Your task to perform on an android device: Show the shopping cart on newegg.com. Add "amazon basics triple a" to the cart on newegg.com, then select checkout. Image 0: 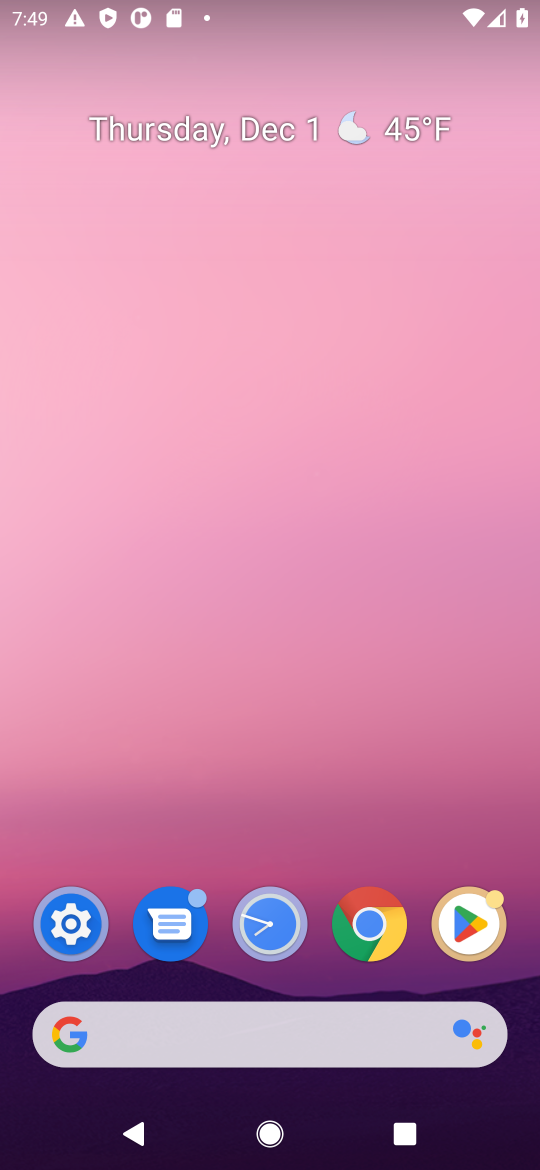
Step 0: click (283, 1038)
Your task to perform on an android device: Show the shopping cart on newegg.com. Add "amazon basics triple a" to the cart on newegg.com, then select checkout. Image 1: 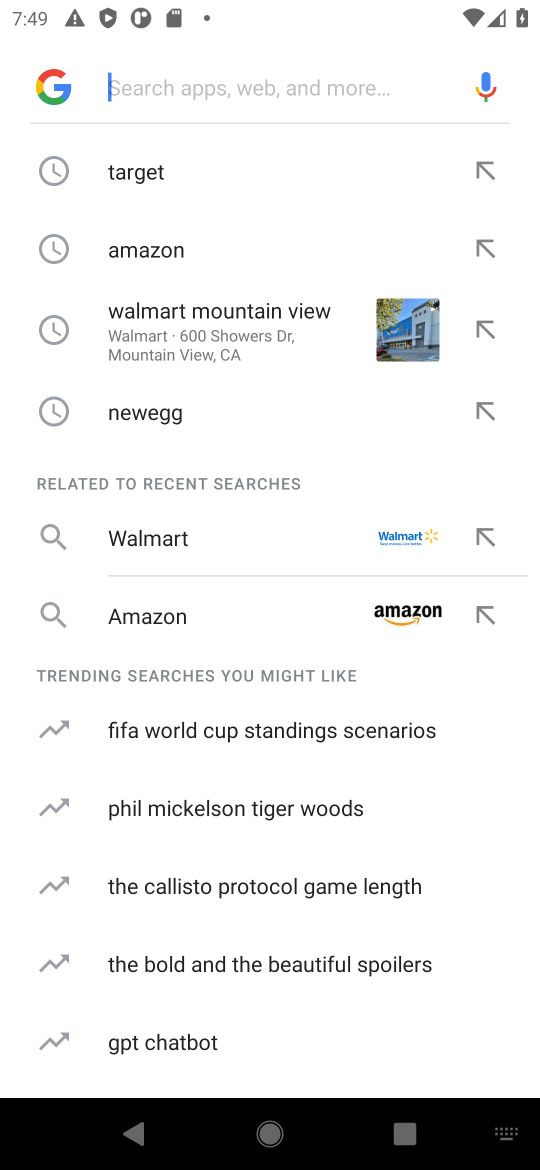
Step 1: type "newegg"
Your task to perform on an android device: Show the shopping cart on newegg.com. Add "amazon basics triple a" to the cart on newegg.com, then select checkout. Image 2: 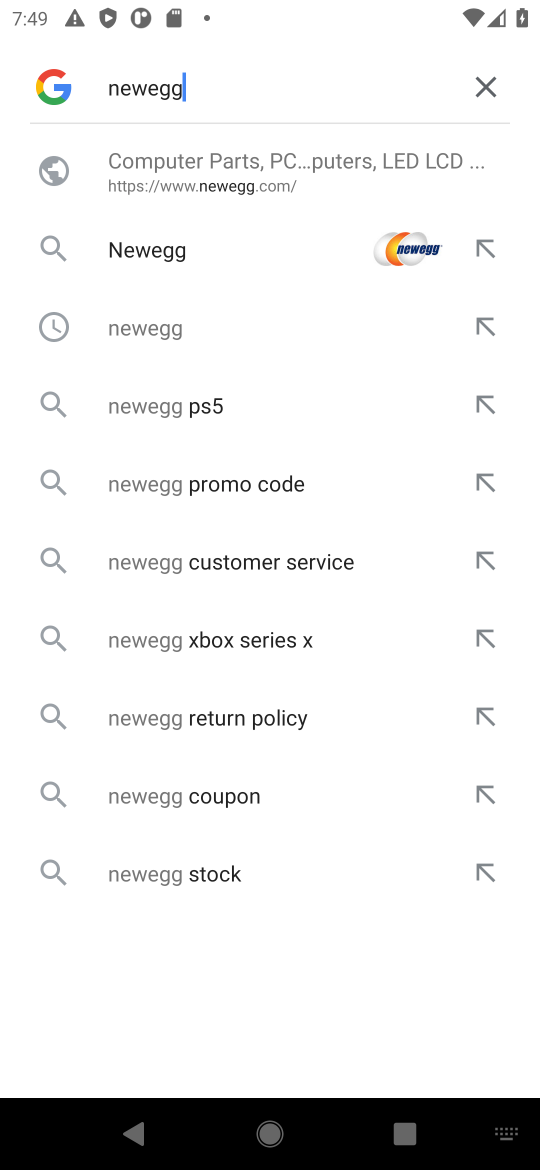
Step 2: click (152, 209)
Your task to perform on an android device: Show the shopping cart on newegg.com. Add "amazon basics triple a" to the cart on newegg.com, then select checkout. Image 3: 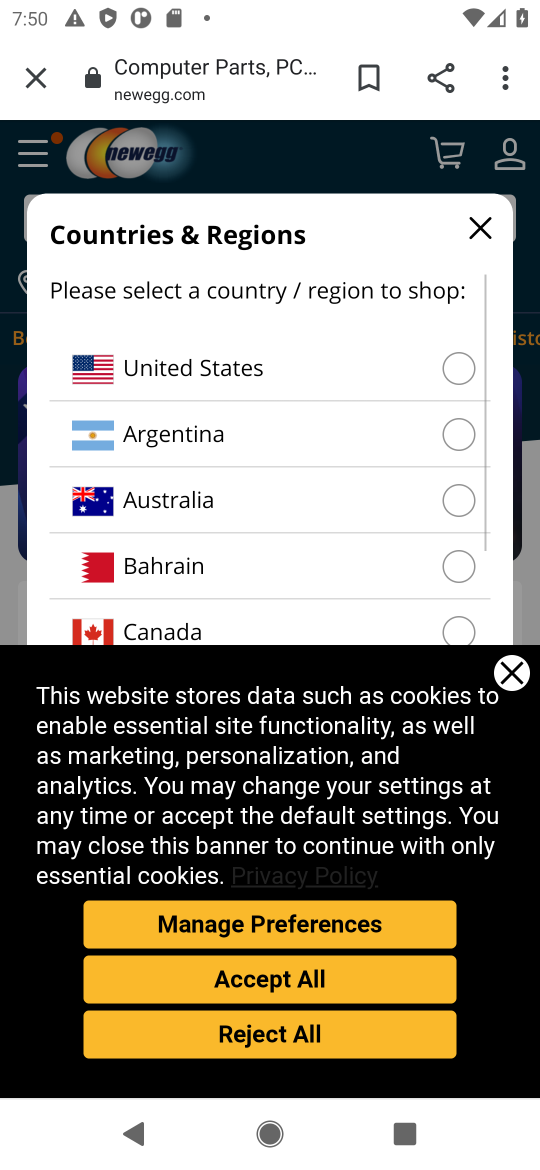
Step 3: click (271, 366)
Your task to perform on an android device: Show the shopping cart on newegg.com. Add "amazon basics triple a" to the cart on newegg.com, then select checkout. Image 4: 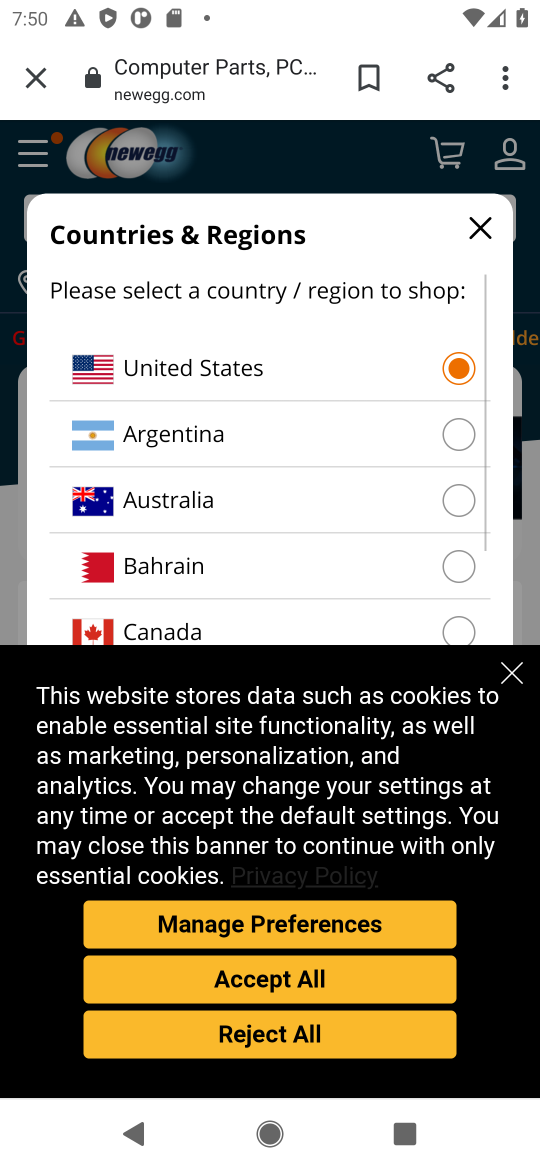
Step 4: click (335, 969)
Your task to perform on an android device: Show the shopping cart on newegg.com. Add "amazon basics triple a" to the cart on newegg.com, then select checkout. Image 5: 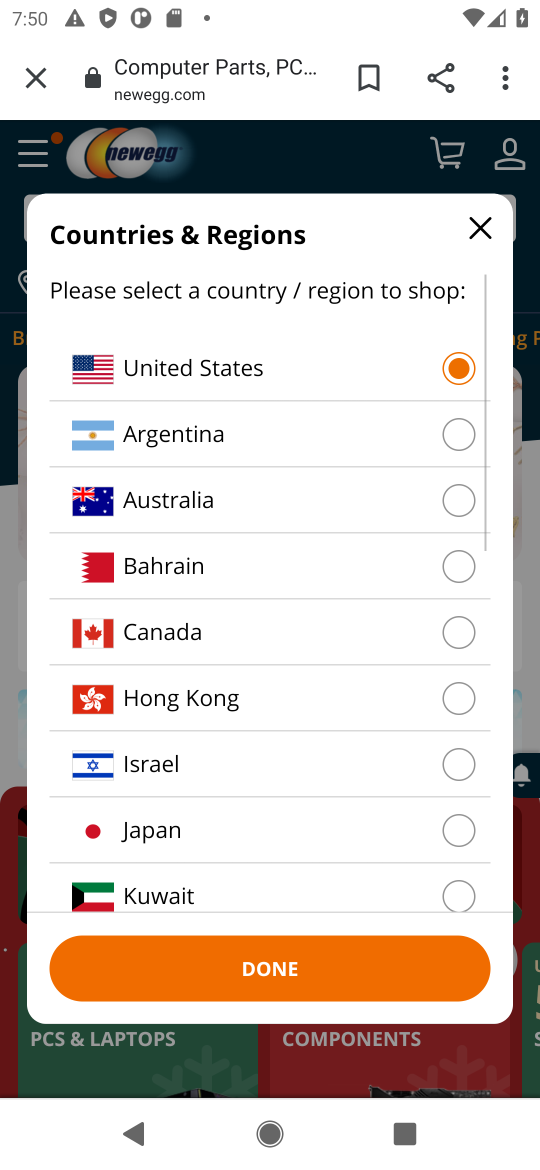
Step 5: click (335, 969)
Your task to perform on an android device: Show the shopping cart on newegg.com. Add "amazon basics triple a" to the cart on newegg.com, then select checkout. Image 6: 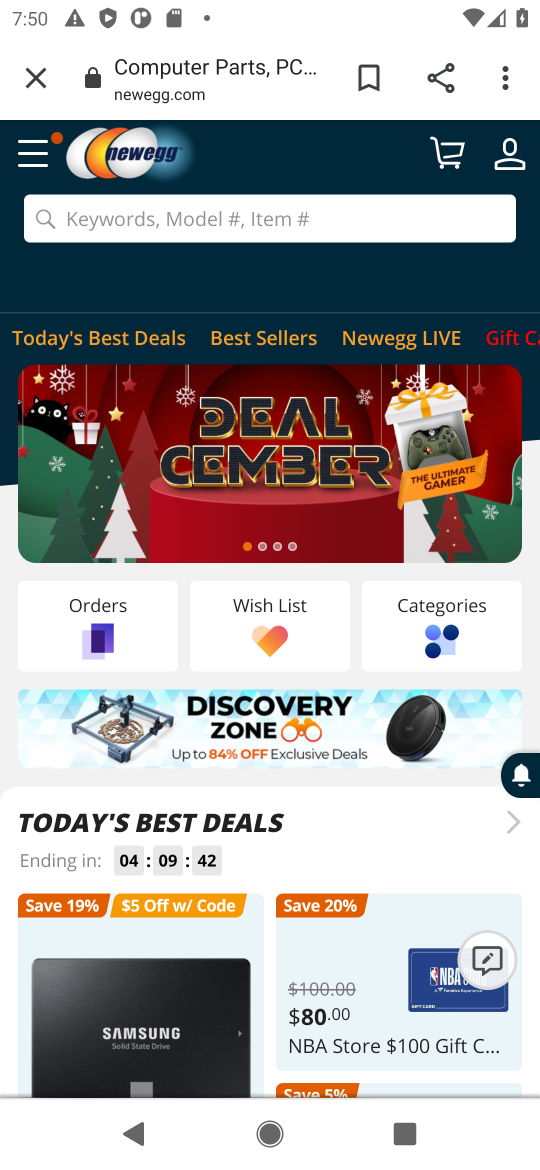
Step 6: click (248, 220)
Your task to perform on an android device: Show the shopping cart on newegg.com. Add "amazon basics triple a" to the cart on newegg.com, then select checkout. Image 7: 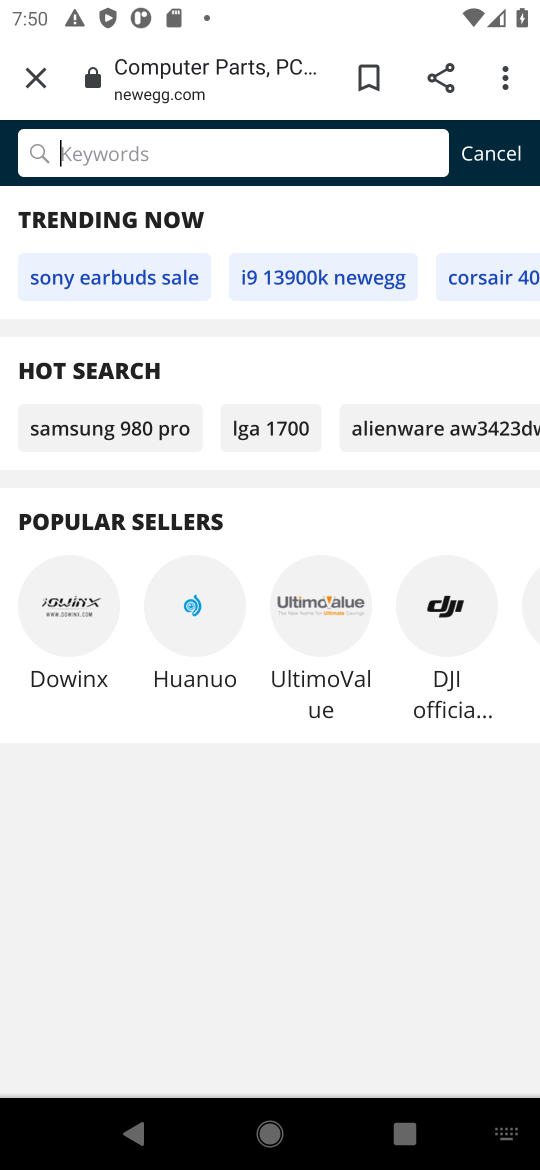
Step 7: type "amazon basic tripl aa "
Your task to perform on an android device: Show the shopping cart on newegg.com. Add "amazon basics triple a" to the cart on newegg.com, then select checkout. Image 8: 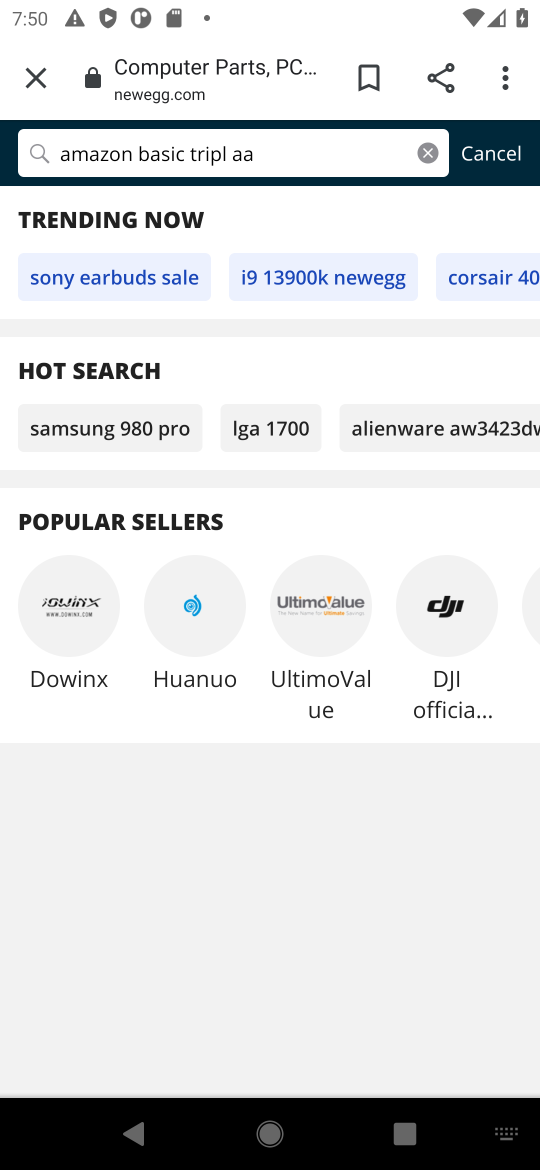
Step 8: task complete